Your task to perform on an android device: open a new tab in the chrome app Image 0: 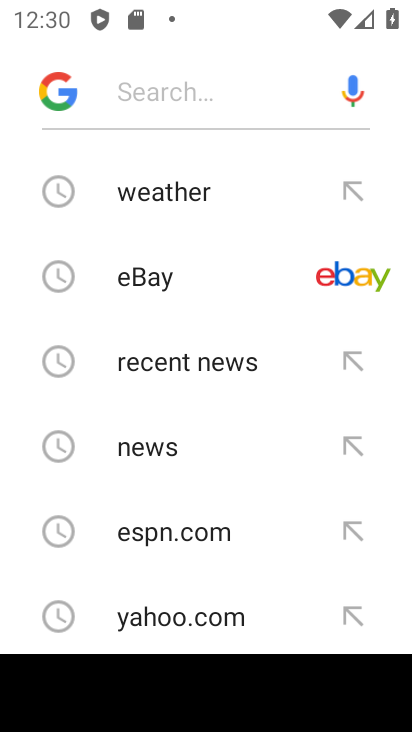
Step 0: press back button
Your task to perform on an android device: open a new tab in the chrome app Image 1: 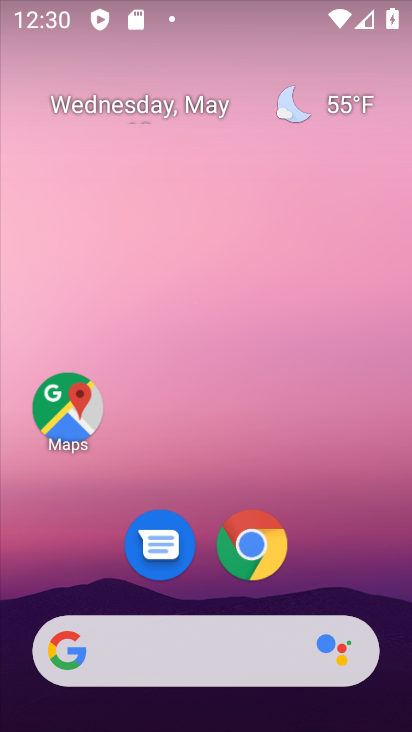
Step 1: click (262, 539)
Your task to perform on an android device: open a new tab in the chrome app Image 2: 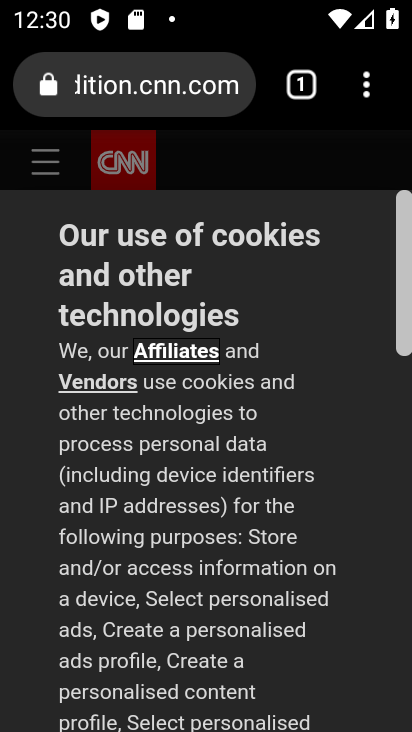
Step 2: click (363, 84)
Your task to perform on an android device: open a new tab in the chrome app Image 3: 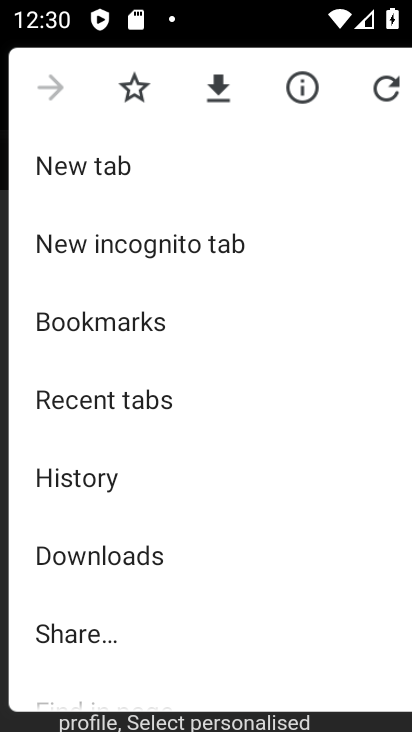
Step 3: click (128, 152)
Your task to perform on an android device: open a new tab in the chrome app Image 4: 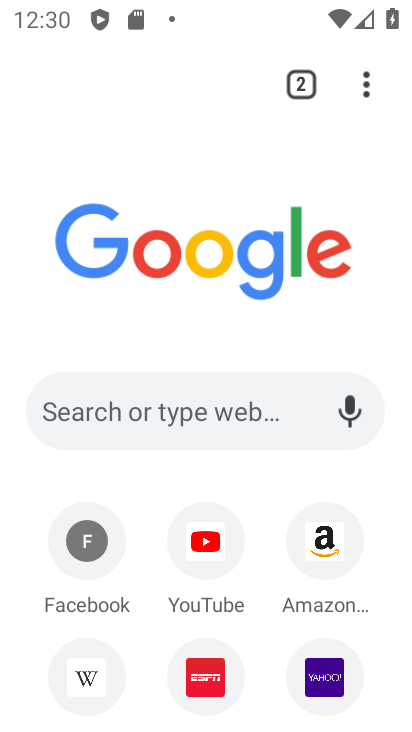
Step 4: task complete